Your task to perform on an android device: Do I have any events this weekend? Image 0: 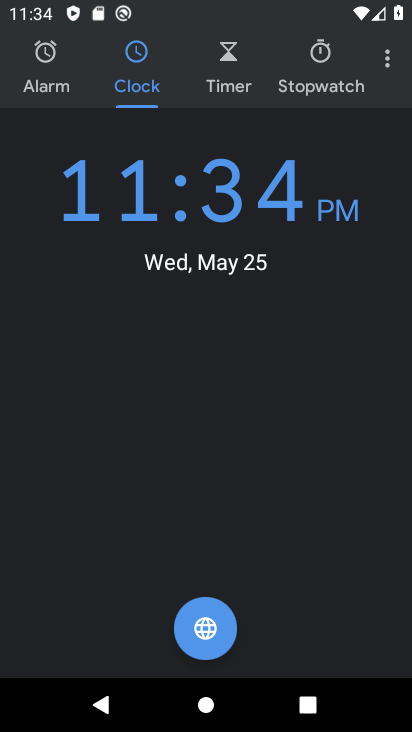
Step 0: drag from (241, 505) to (240, 121)
Your task to perform on an android device: Do I have any events this weekend? Image 1: 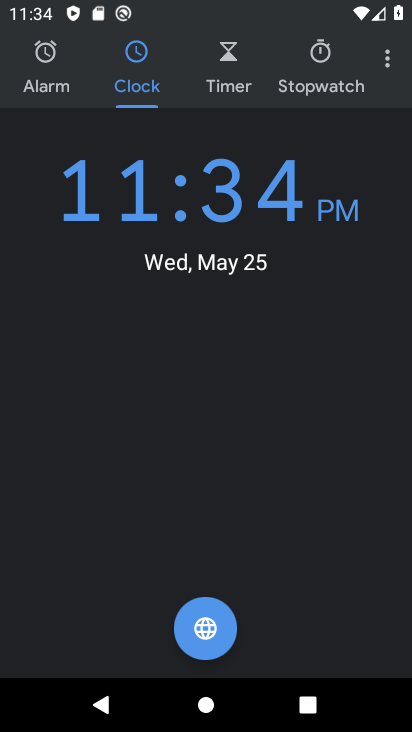
Step 1: press home button
Your task to perform on an android device: Do I have any events this weekend? Image 2: 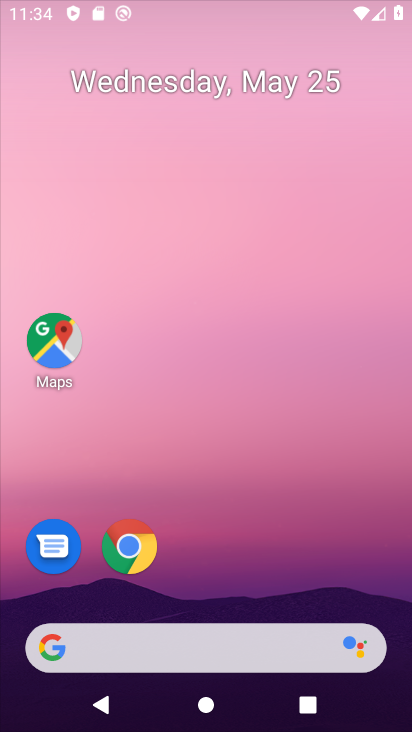
Step 2: drag from (250, 586) to (250, 104)
Your task to perform on an android device: Do I have any events this weekend? Image 3: 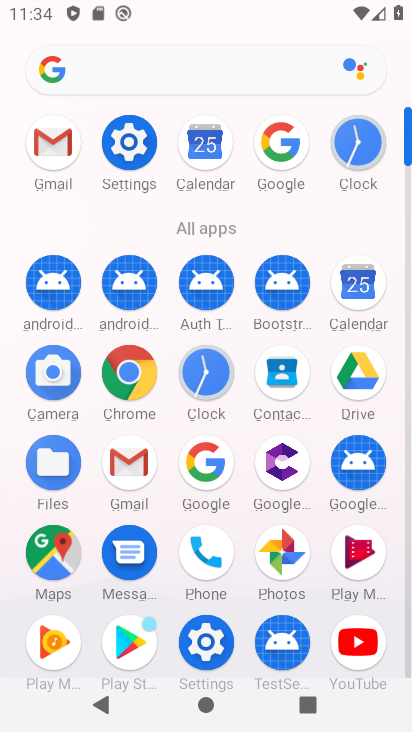
Step 3: click (354, 285)
Your task to perform on an android device: Do I have any events this weekend? Image 4: 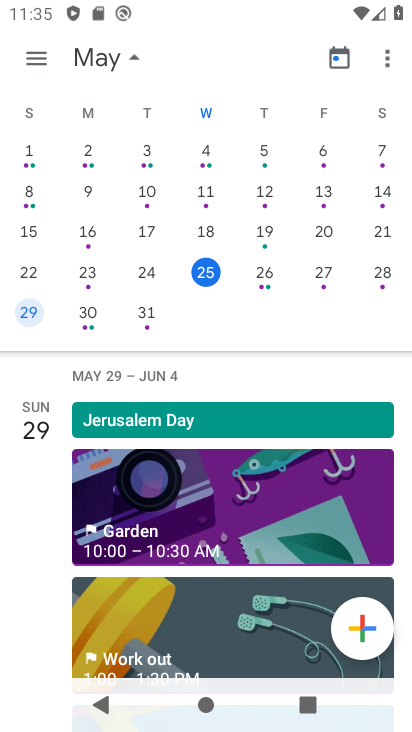
Step 4: click (374, 268)
Your task to perform on an android device: Do I have any events this weekend? Image 5: 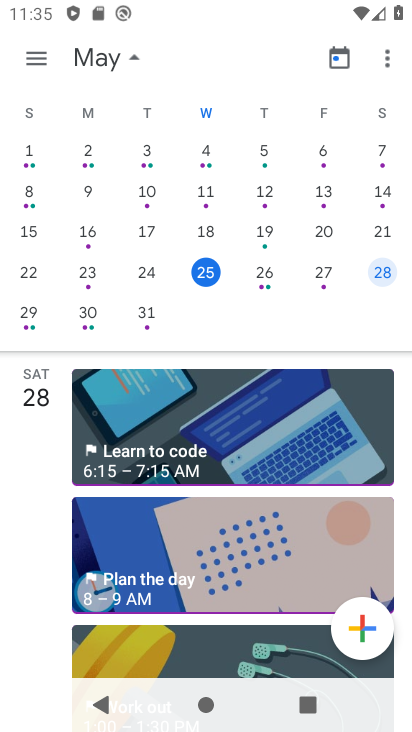
Step 5: click (37, 317)
Your task to perform on an android device: Do I have any events this weekend? Image 6: 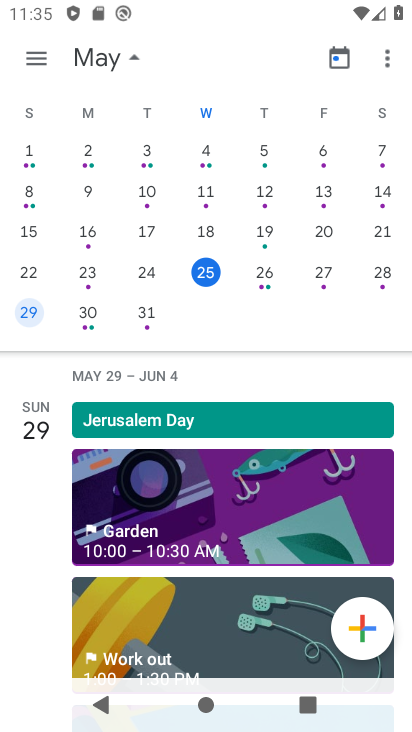
Step 6: task complete